Your task to perform on an android device: see creations saved in the google photos Image 0: 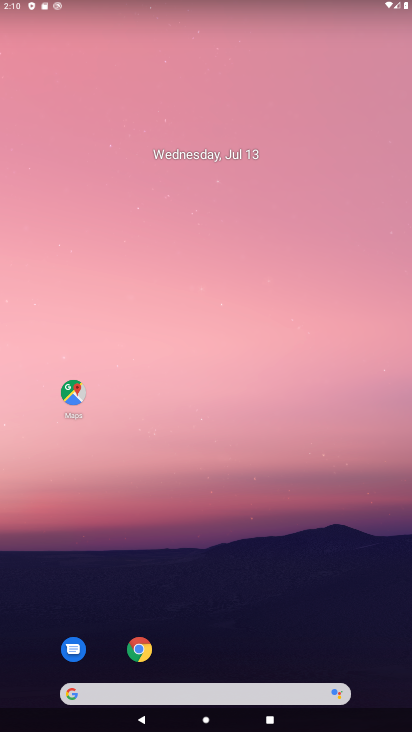
Step 0: drag from (174, 548) to (165, 175)
Your task to perform on an android device: see creations saved in the google photos Image 1: 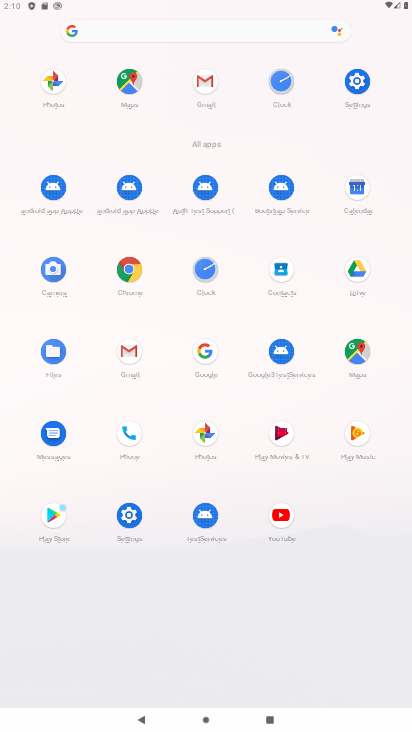
Step 1: click (49, 81)
Your task to perform on an android device: see creations saved in the google photos Image 2: 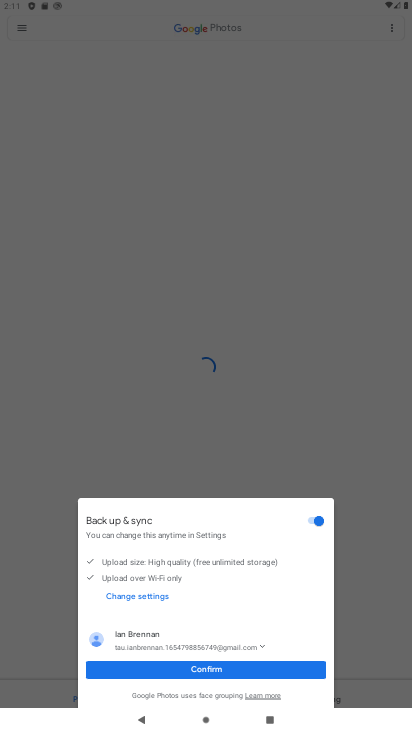
Step 2: click (206, 668)
Your task to perform on an android device: see creations saved in the google photos Image 3: 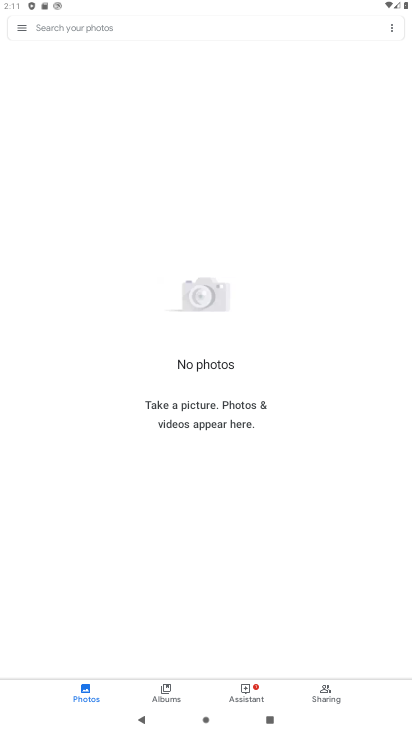
Step 3: click (81, 26)
Your task to perform on an android device: see creations saved in the google photos Image 4: 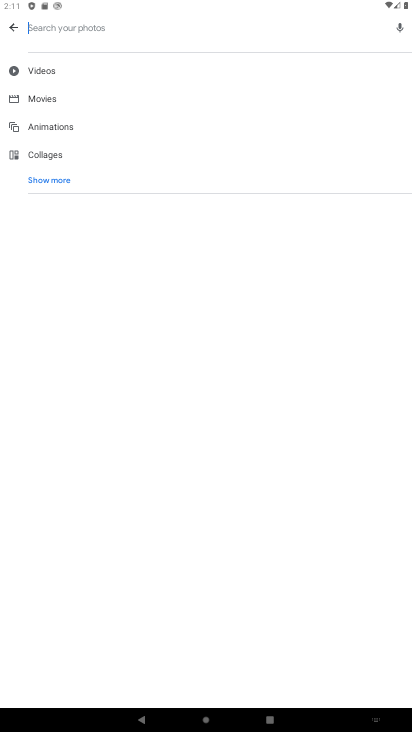
Step 4: click (49, 178)
Your task to perform on an android device: see creations saved in the google photos Image 5: 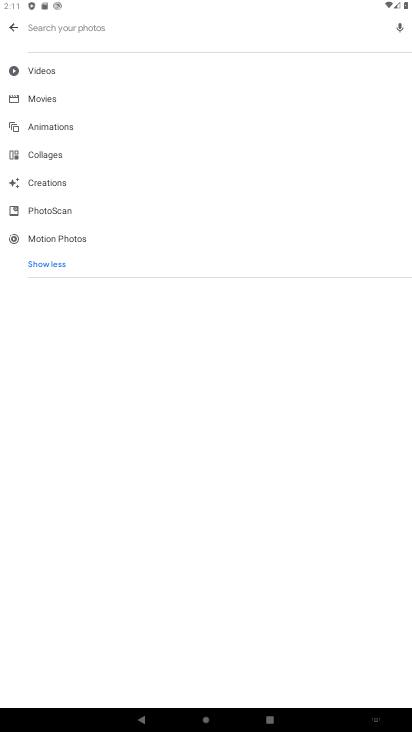
Step 5: click (49, 180)
Your task to perform on an android device: see creations saved in the google photos Image 6: 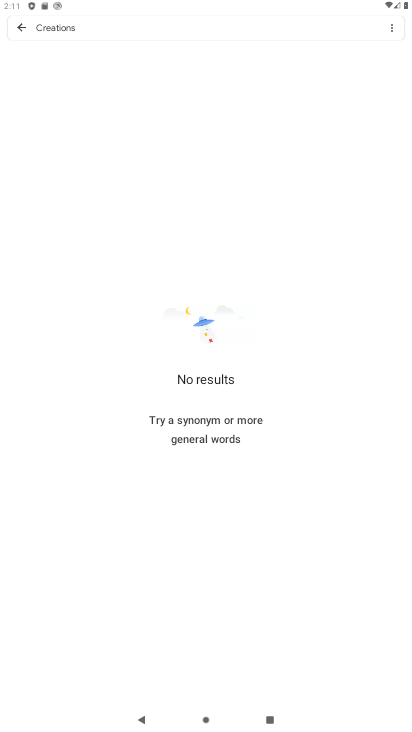
Step 6: task complete